Your task to perform on an android device: Open ESPN.com Image 0: 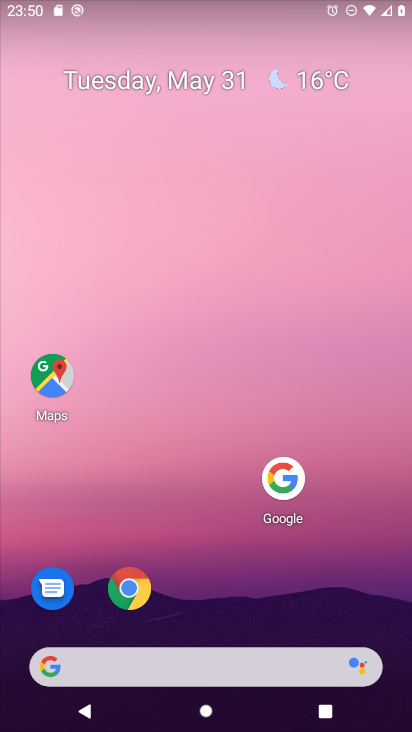
Step 0: press home button
Your task to perform on an android device: Open ESPN.com Image 1: 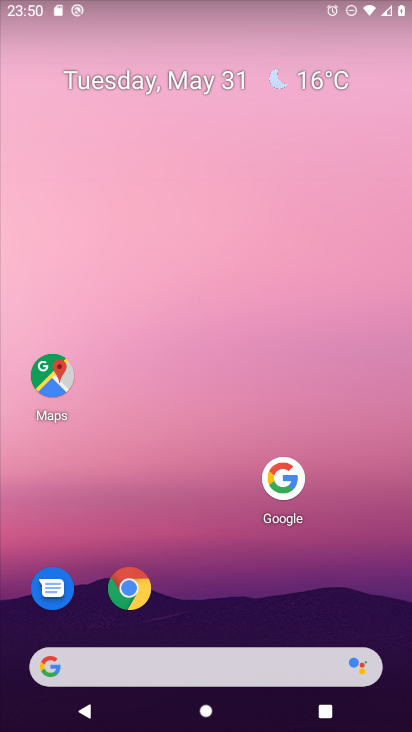
Step 1: click (134, 589)
Your task to perform on an android device: Open ESPN.com Image 2: 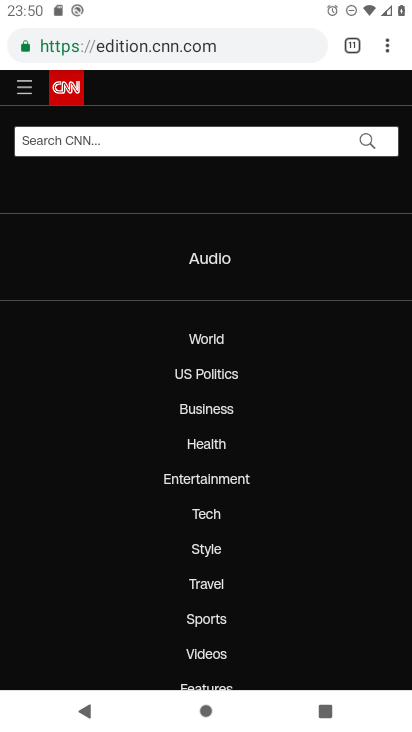
Step 2: drag from (391, 47) to (274, 90)
Your task to perform on an android device: Open ESPN.com Image 3: 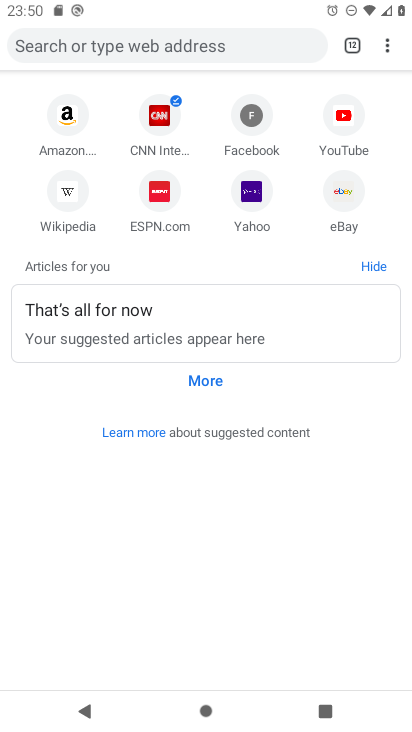
Step 3: click (161, 198)
Your task to perform on an android device: Open ESPN.com Image 4: 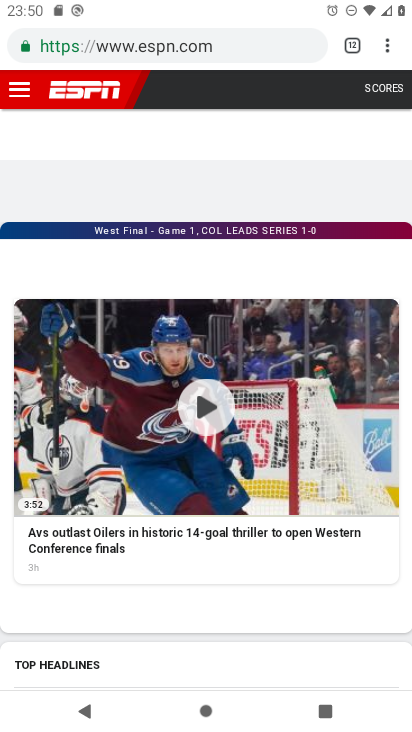
Step 4: task complete